Your task to perform on an android device: Go to Amazon Image 0: 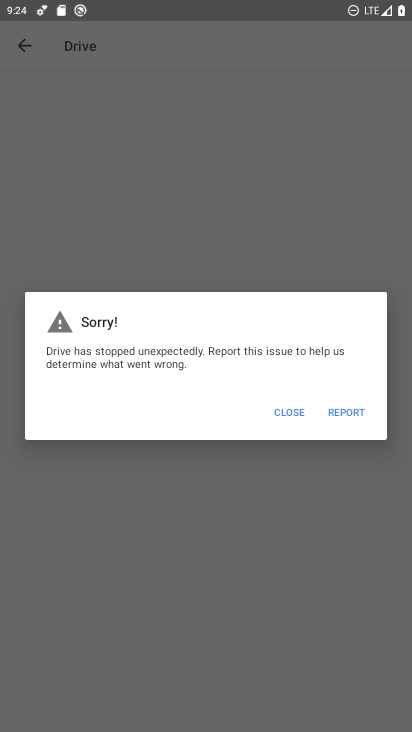
Step 0: press home button
Your task to perform on an android device: Go to Amazon Image 1: 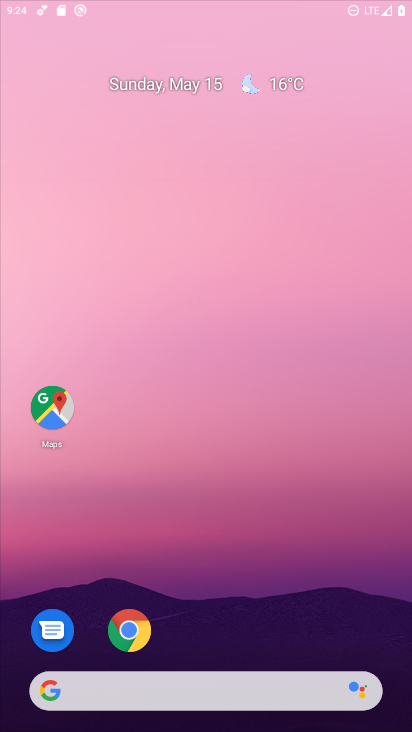
Step 1: drag from (214, 678) to (250, 151)
Your task to perform on an android device: Go to Amazon Image 2: 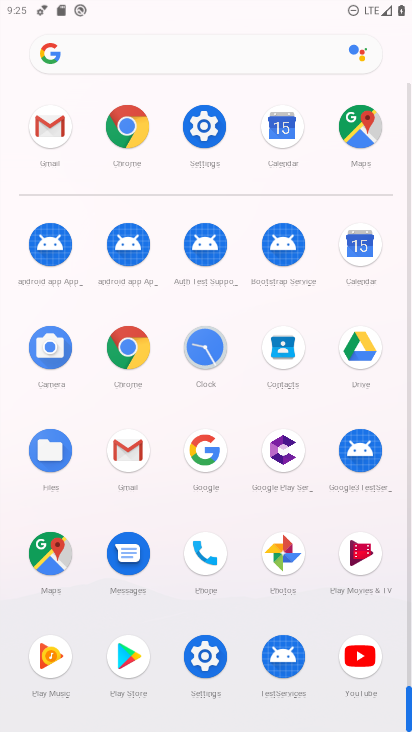
Step 2: click (188, 52)
Your task to perform on an android device: Go to Amazon Image 3: 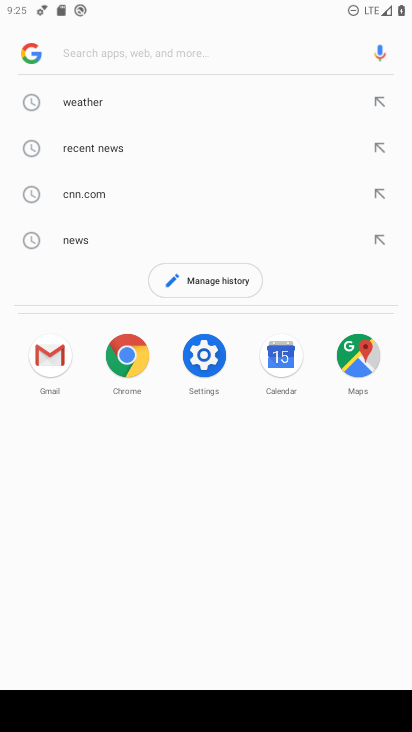
Step 3: type "amazon"
Your task to perform on an android device: Go to Amazon Image 4: 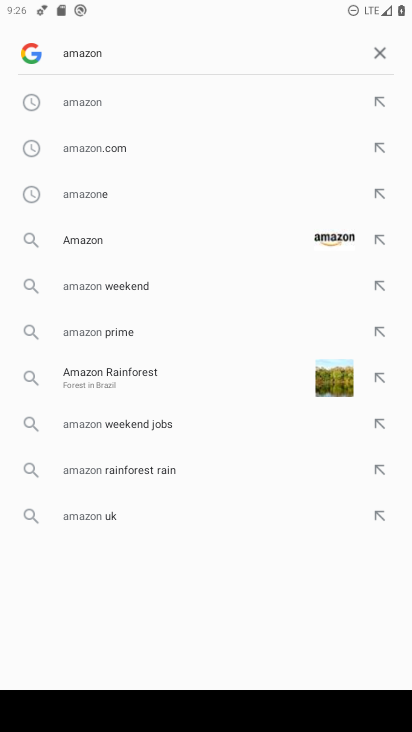
Step 4: click (123, 98)
Your task to perform on an android device: Go to Amazon Image 5: 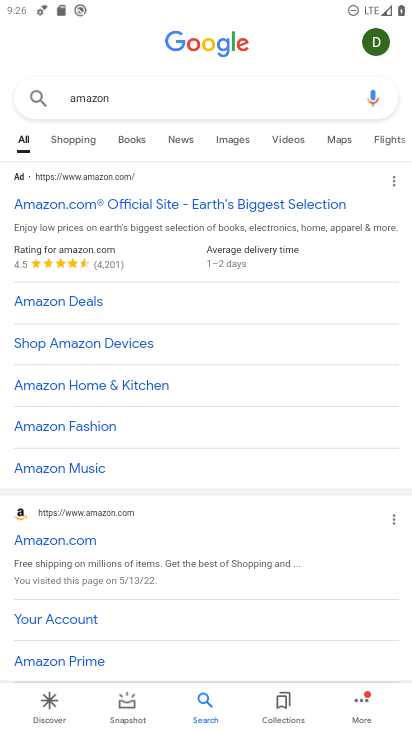
Step 5: click (97, 208)
Your task to perform on an android device: Go to Amazon Image 6: 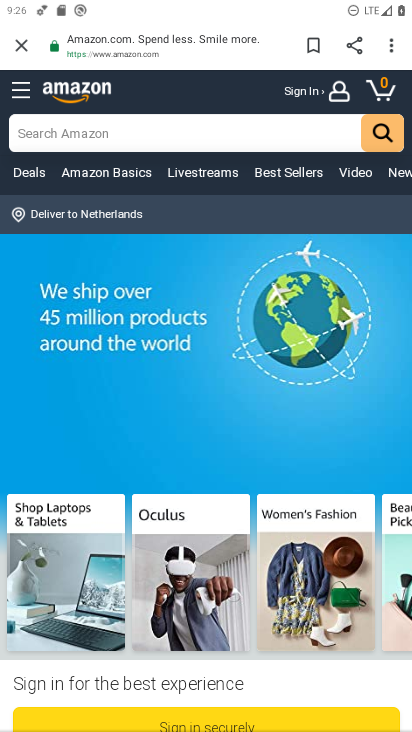
Step 6: task complete